Your task to perform on an android device: Open Google Maps and go to "Timeline" Image 0: 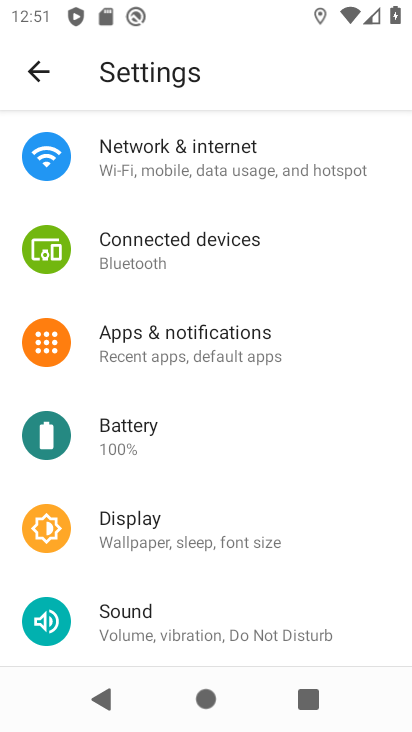
Step 0: press home button
Your task to perform on an android device: Open Google Maps and go to "Timeline" Image 1: 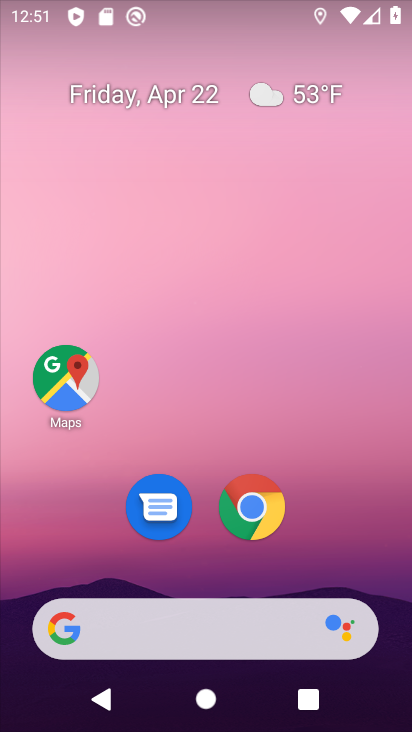
Step 1: click (61, 386)
Your task to perform on an android device: Open Google Maps and go to "Timeline" Image 2: 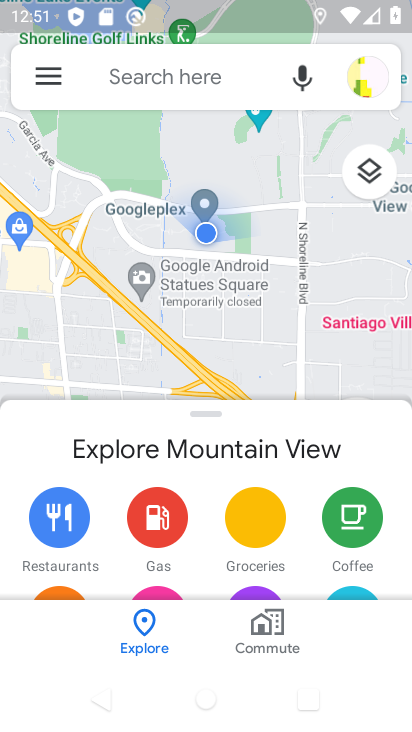
Step 2: click (36, 71)
Your task to perform on an android device: Open Google Maps and go to "Timeline" Image 3: 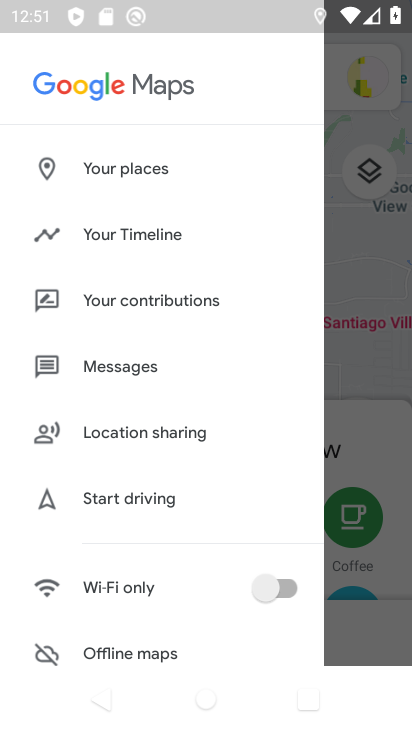
Step 3: click (123, 233)
Your task to perform on an android device: Open Google Maps and go to "Timeline" Image 4: 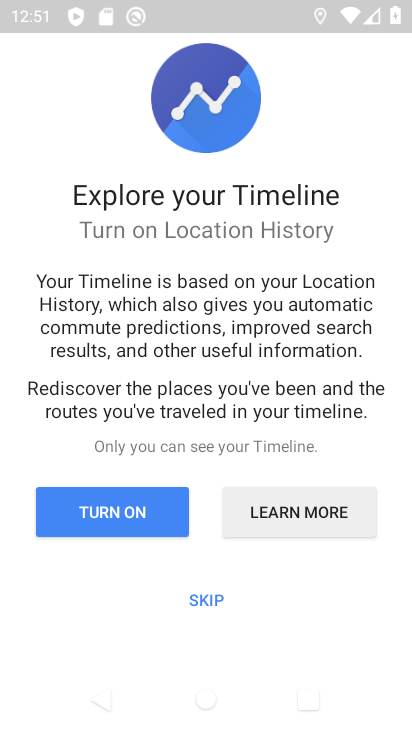
Step 4: task complete